Your task to perform on an android device: change keyboard looks Image 0: 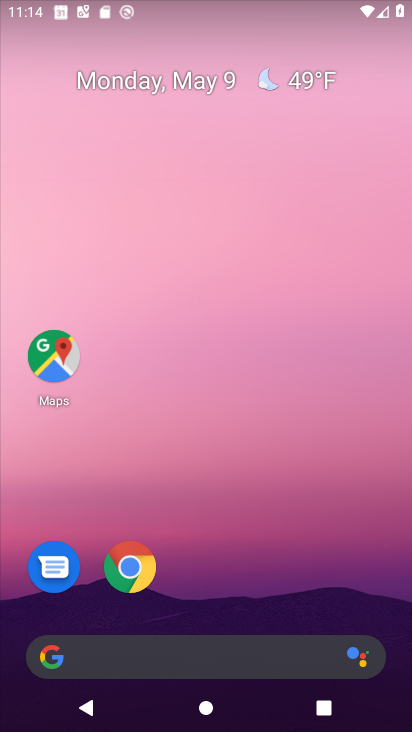
Step 0: drag from (126, 632) to (210, 132)
Your task to perform on an android device: change keyboard looks Image 1: 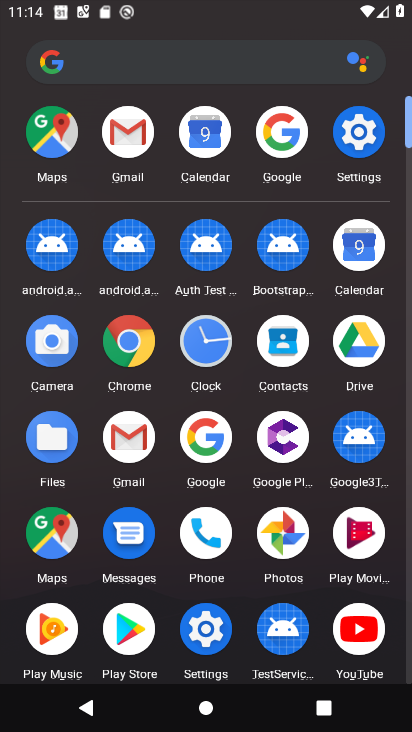
Step 1: click (372, 126)
Your task to perform on an android device: change keyboard looks Image 2: 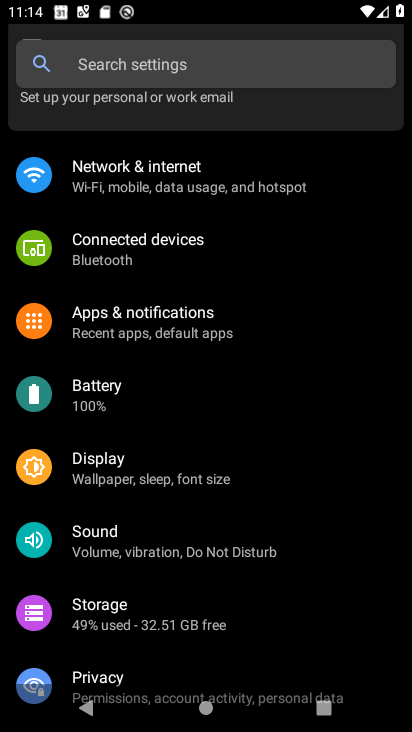
Step 2: drag from (196, 666) to (197, 293)
Your task to perform on an android device: change keyboard looks Image 3: 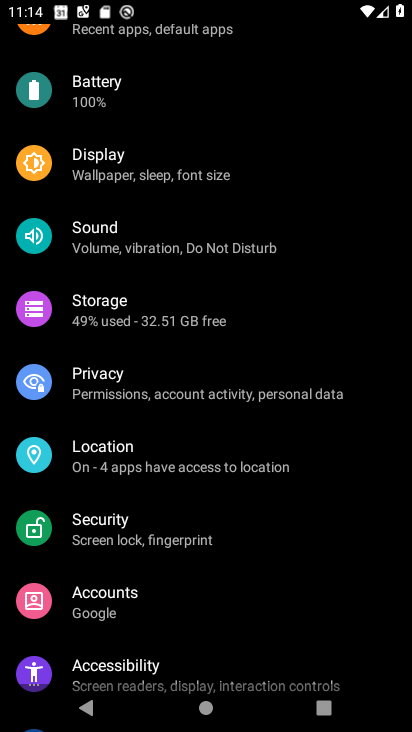
Step 3: drag from (206, 664) to (204, 329)
Your task to perform on an android device: change keyboard looks Image 4: 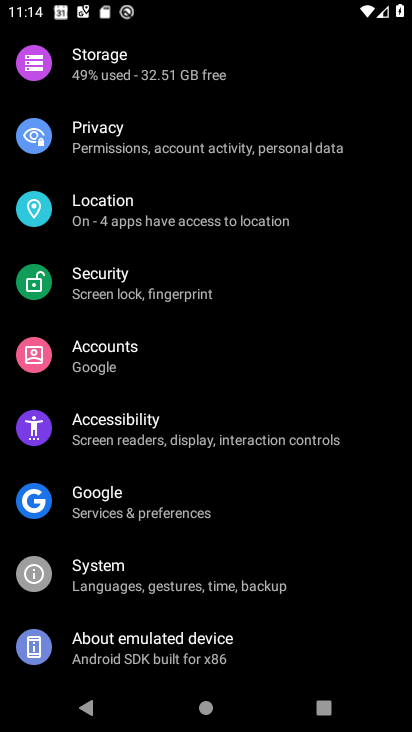
Step 4: click (123, 589)
Your task to perform on an android device: change keyboard looks Image 5: 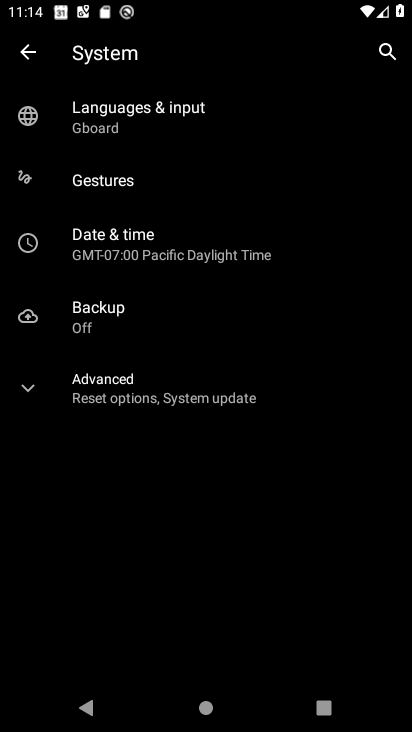
Step 5: click (106, 110)
Your task to perform on an android device: change keyboard looks Image 6: 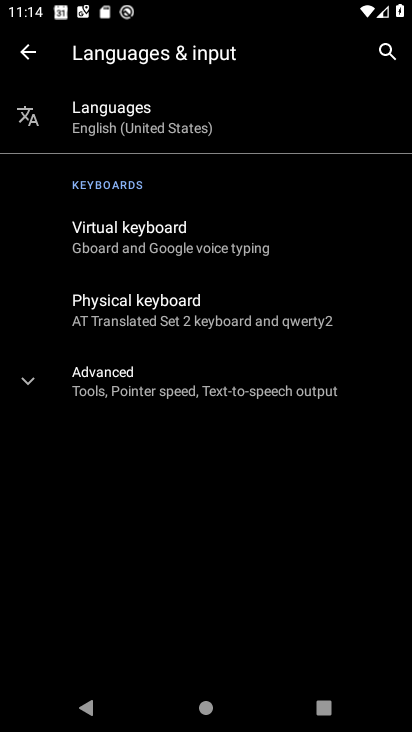
Step 6: click (155, 239)
Your task to perform on an android device: change keyboard looks Image 7: 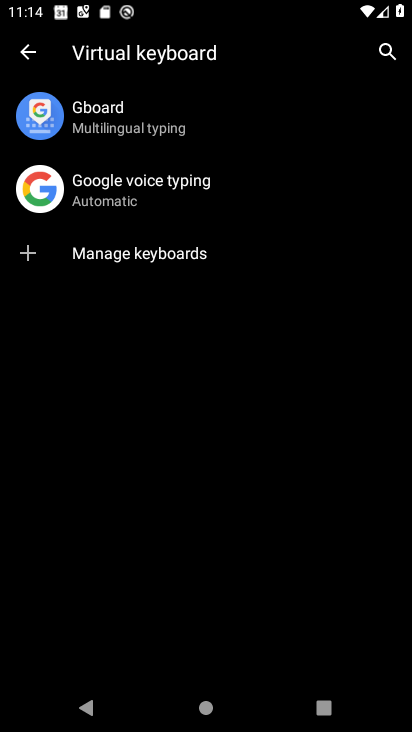
Step 7: click (95, 124)
Your task to perform on an android device: change keyboard looks Image 8: 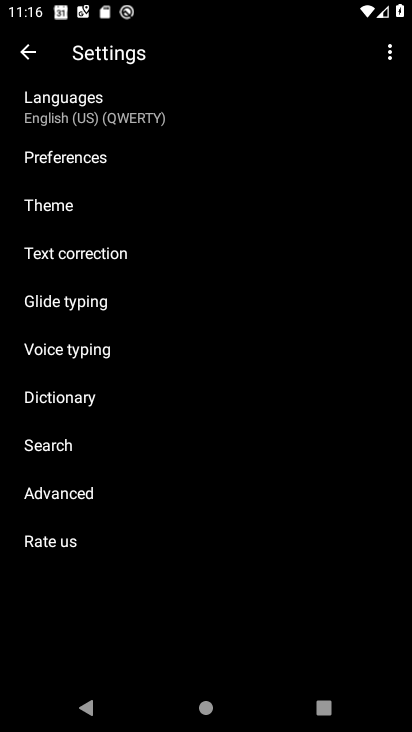
Step 8: click (88, 198)
Your task to perform on an android device: change keyboard looks Image 9: 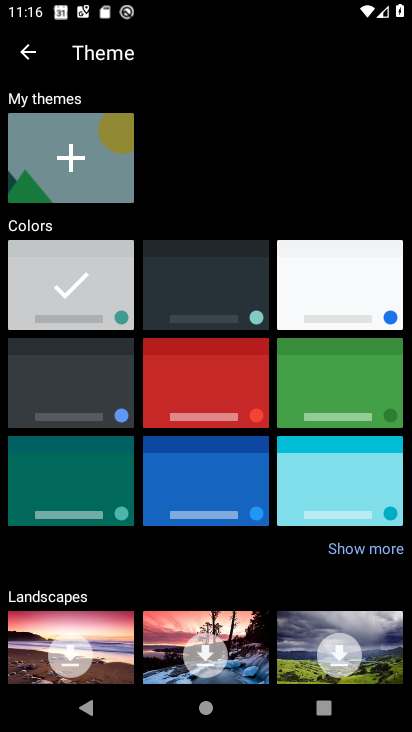
Step 9: click (196, 391)
Your task to perform on an android device: change keyboard looks Image 10: 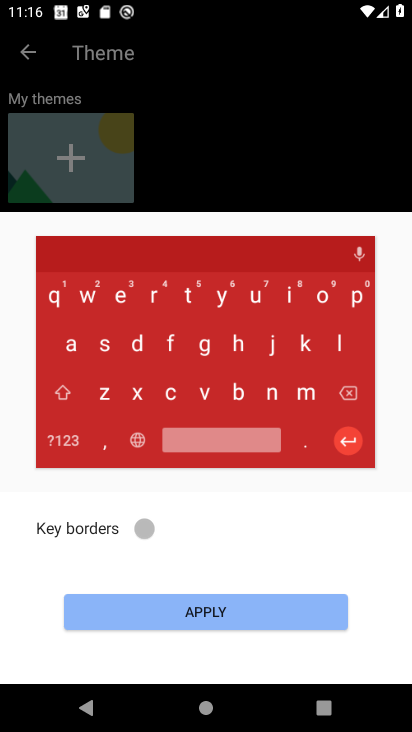
Step 10: click (214, 594)
Your task to perform on an android device: change keyboard looks Image 11: 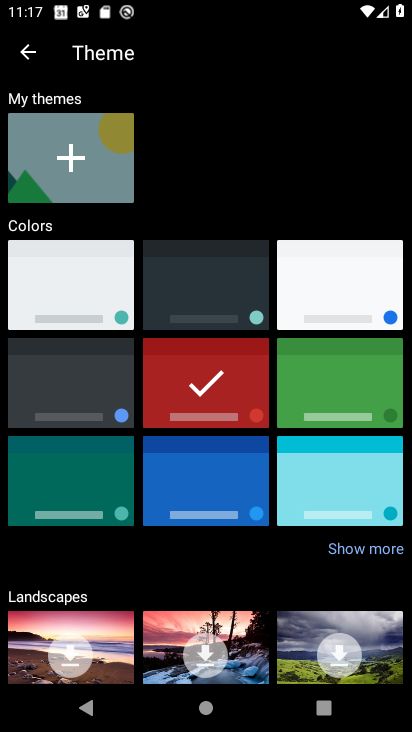
Step 11: task complete